Your task to perform on an android device: Open internet settings Image 0: 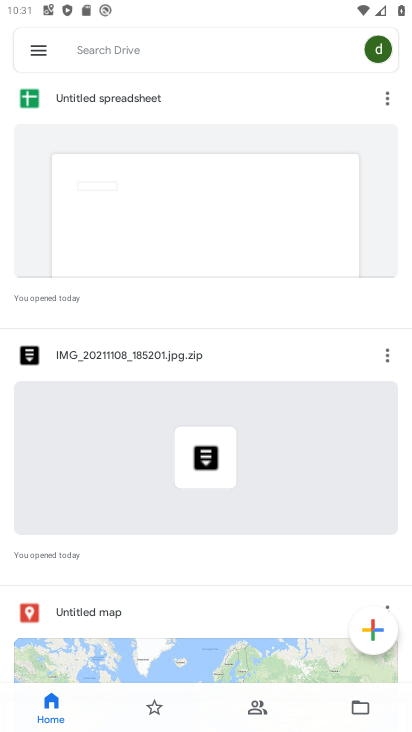
Step 0: press home button
Your task to perform on an android device: Open internet settings Image 1: 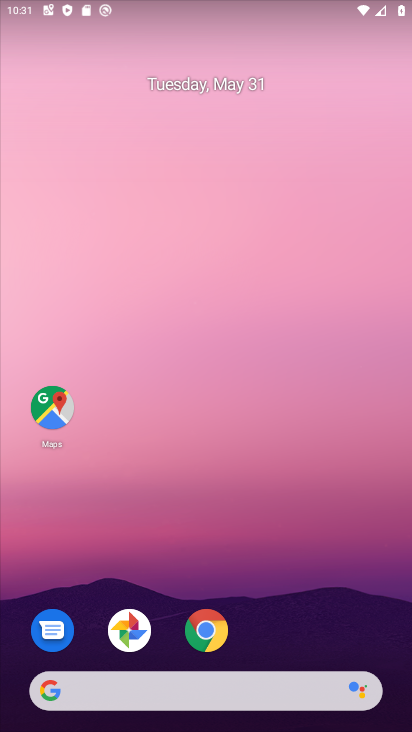
Step 1: drag from (272, 619) to (215, 218)
Your task to perform on an android device: Open internet settings Image 2: 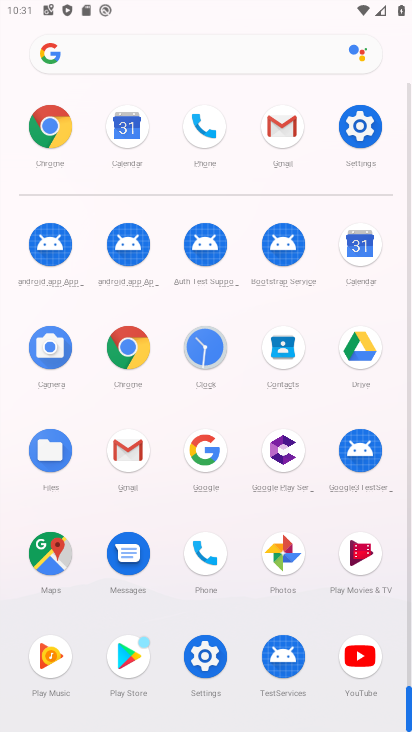
Step 2: click (361, 121)
Your task to perform on an android device: Open internet settings Image 3: 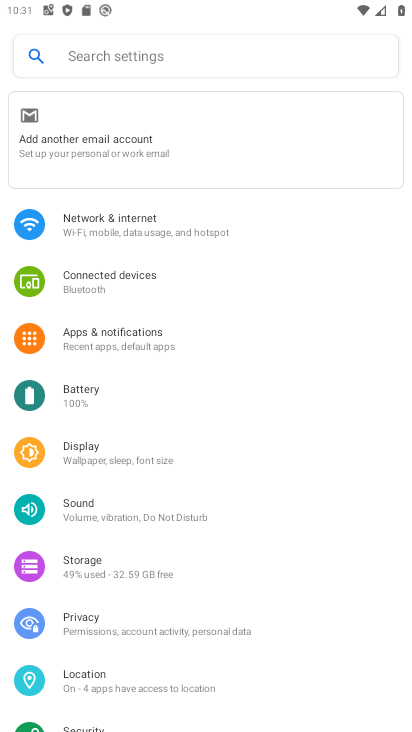
Step 3: click (136, 225)
Your task to perform on an android device: Open internet settings Image 4: 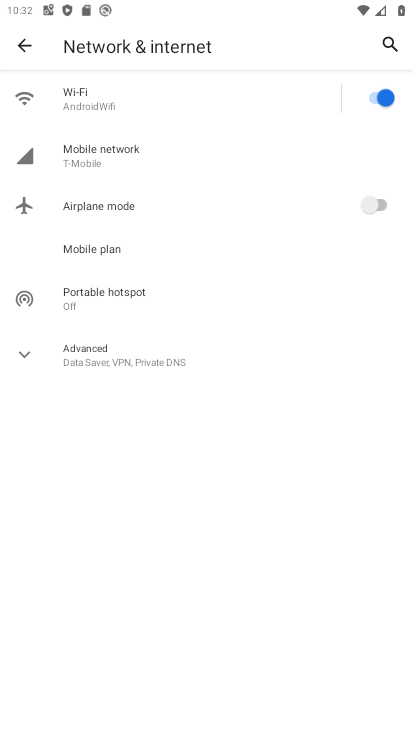
Step 4: task complete